Your task to perform on an android device: View the shopping cart on walmart.com. Image 0: 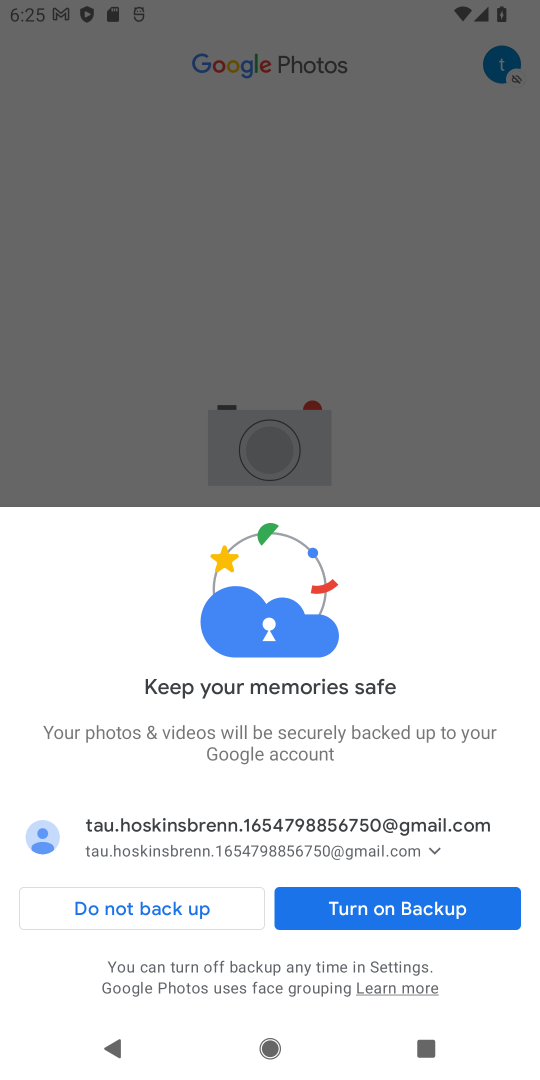
Step 0: press home button
Your task to perform on an android device: View the shopping cart on walmart.com. Image 1: 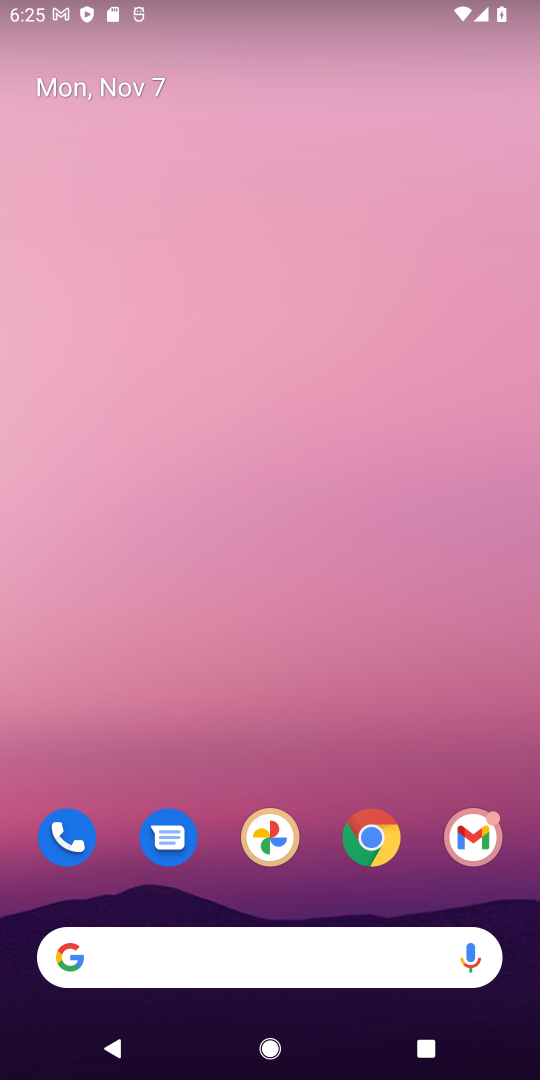
Step 1: click (374, 824)
Your task to perform on an android device: View the shopping cart on walmart.com. Image 2: 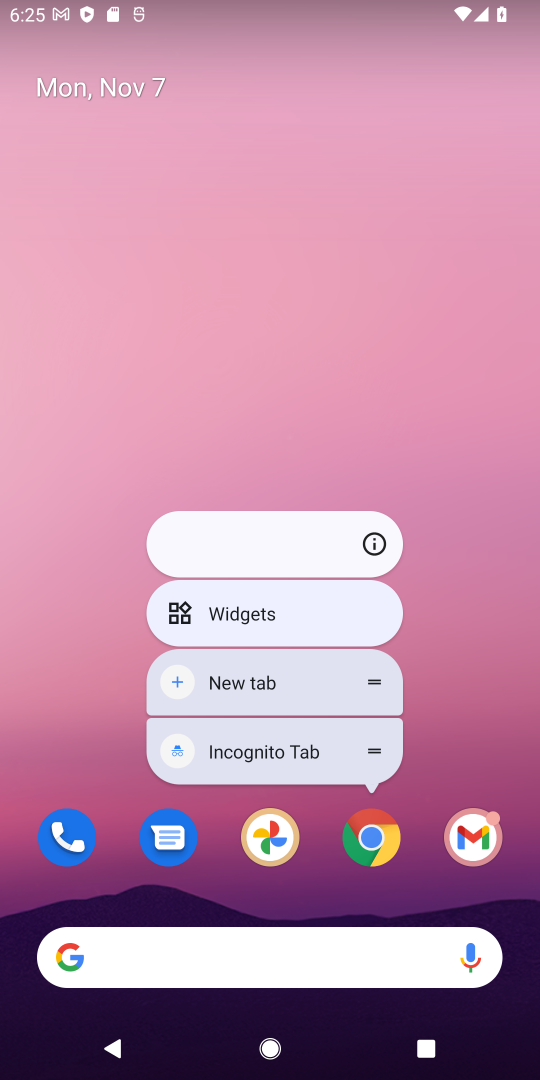
Step 2: click (374, 824)
Your task to perform on an android device: View the shopping cart on walmart.com. Image 3: 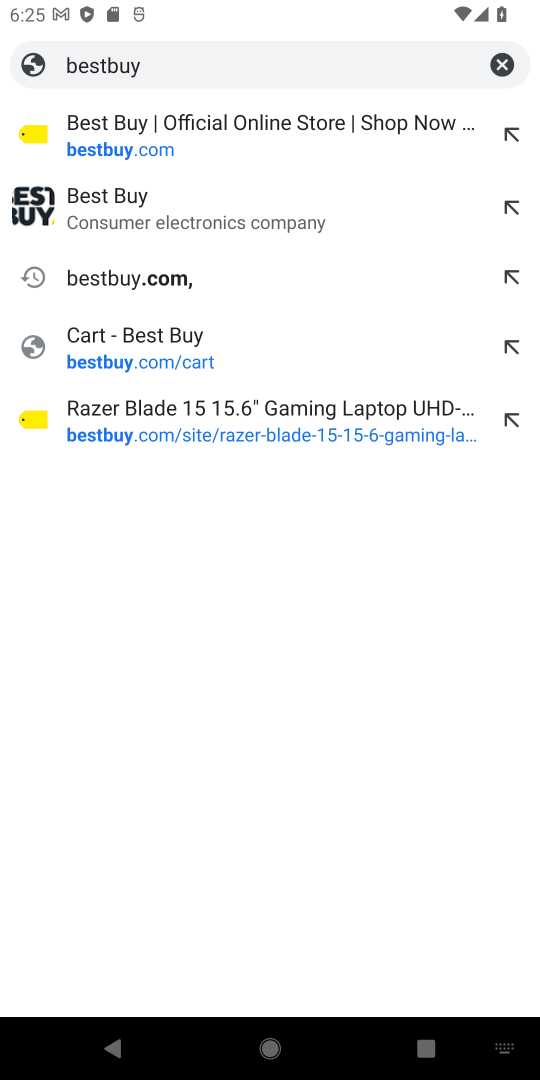
Step 3: click (504, 62)
Your task to perform on an android device: View the shopping cart on walmart.com. Image 4: 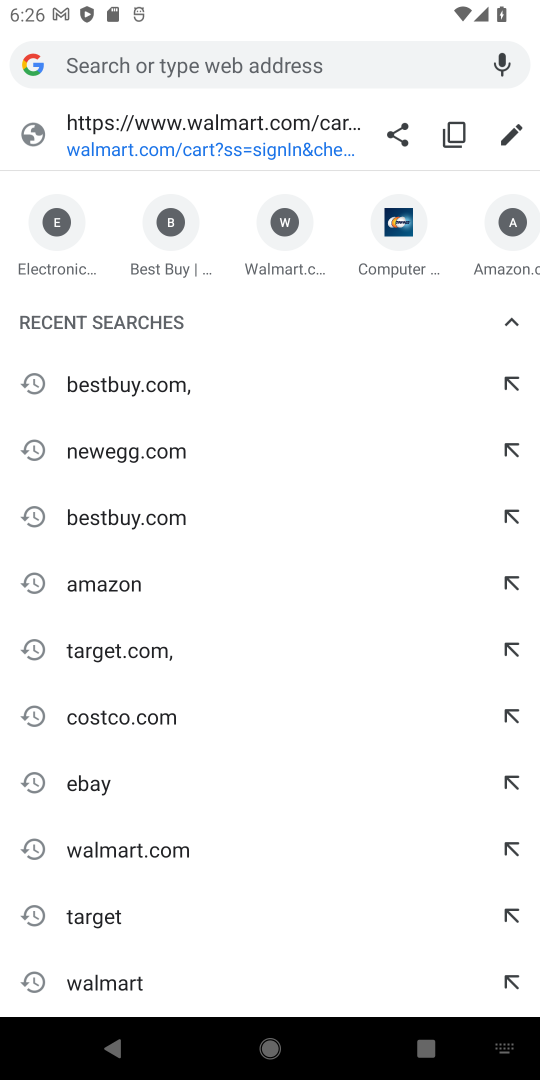
Step 4: type "walmart.com"
Your task to perform on an android device: View the shopping cart on walmart.com. Image 5: 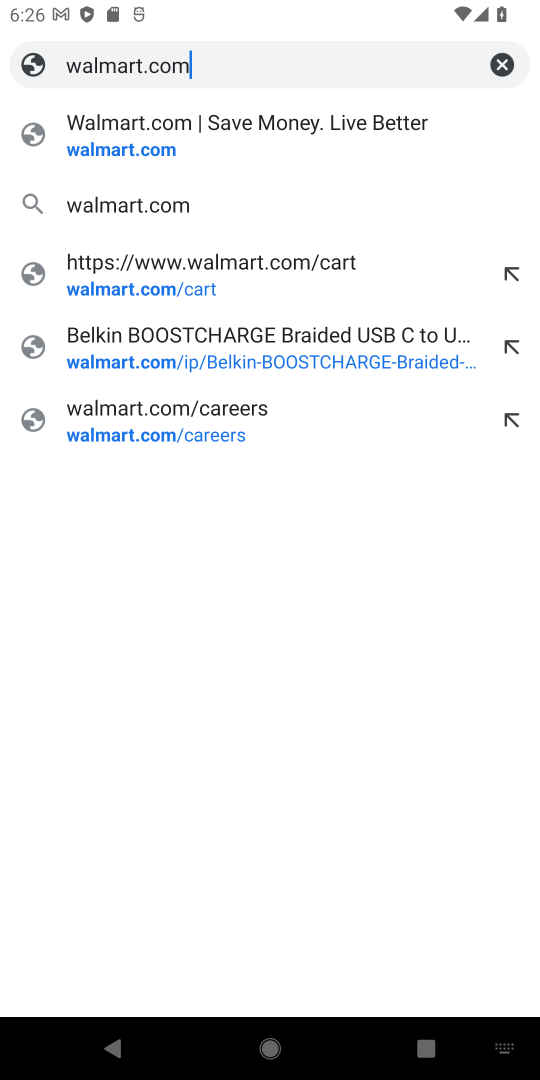
Step 5: click (249, 152)
Your task to perform on an android device: View the shopping cart on walmart.com. Image 6: 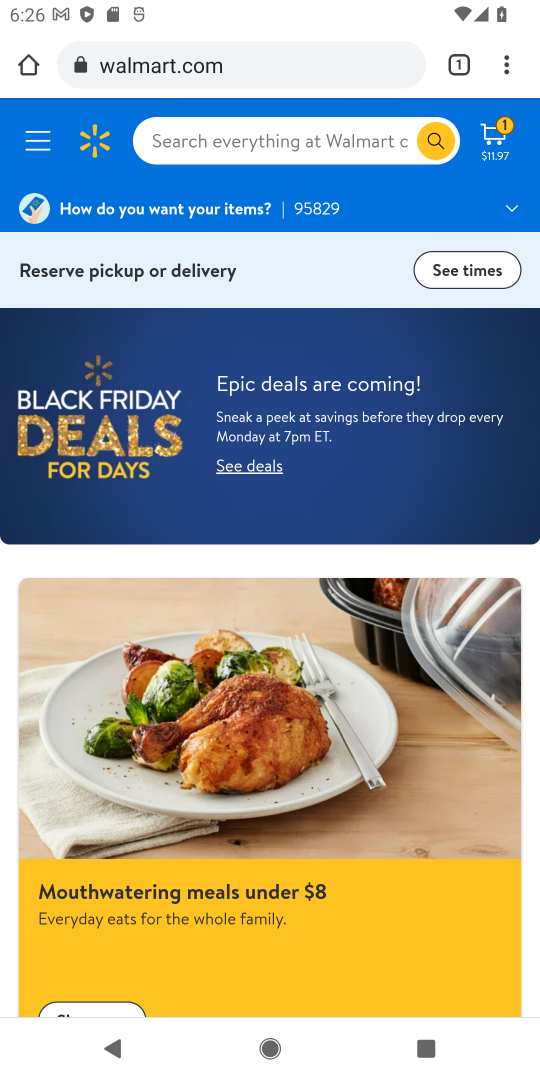
Step 6: click (498, 133)
Your task to perform on an android device: View the shopping cart on walmart.com. Image 7: 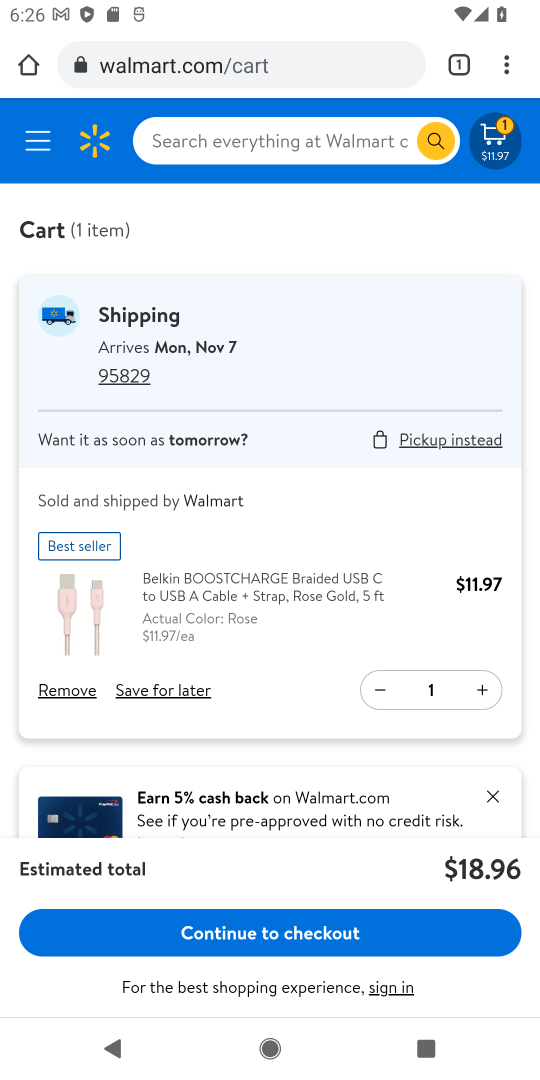
Step 7: task complete